Your task to perform on an android device: change notifications settings Image 0: 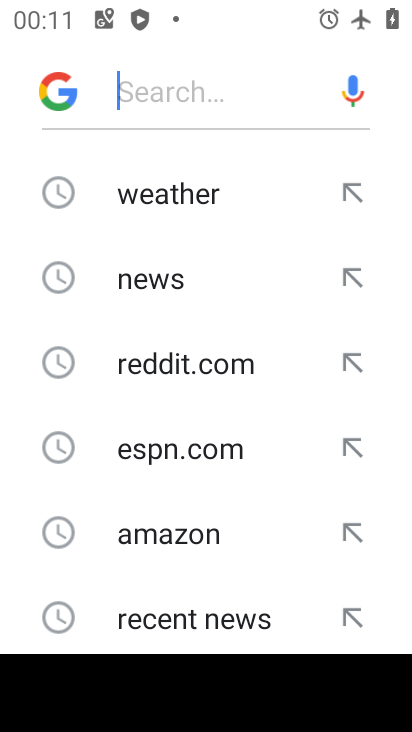
Step 0: press home button
Your task to perform on an android device: change notifications settings Image 1: 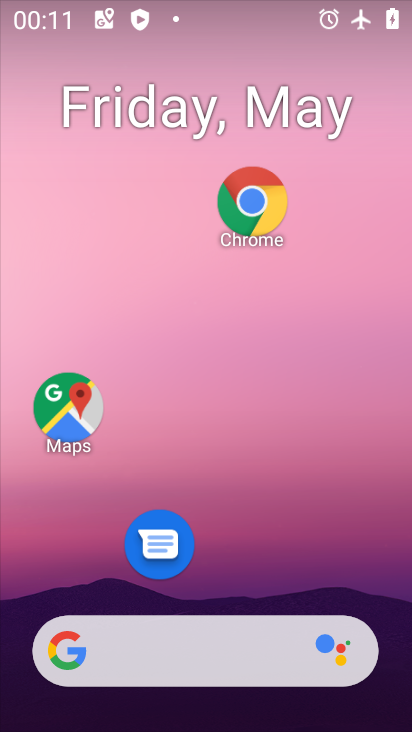
Step 1: drag from (214, 585) to (241, 44)
Your task to perform on an android device: change notifications settings Image 2: 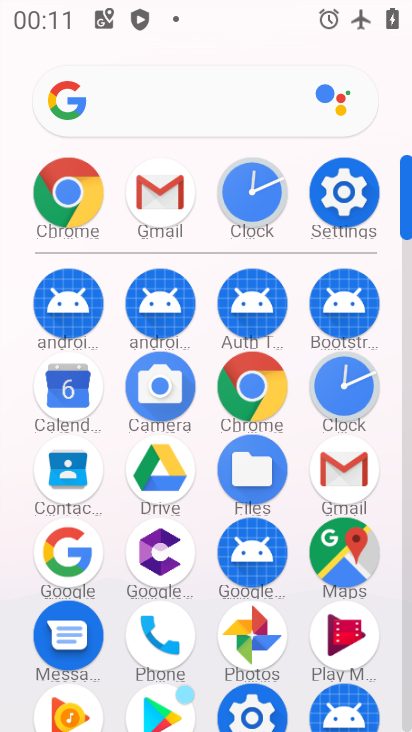
Step 2: click (342, 186)
Your task to perform on an android device: change notifications settings Image 3: 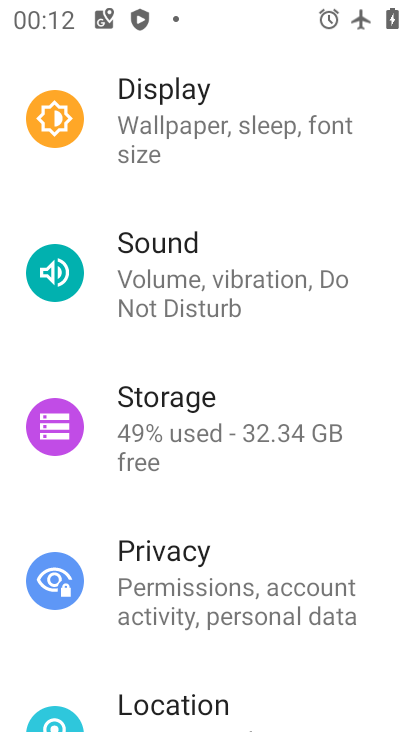
Step 3: drag from (200, 226) to (243, 658)
Your task to perform on an android device: change notifications settings Image 4: 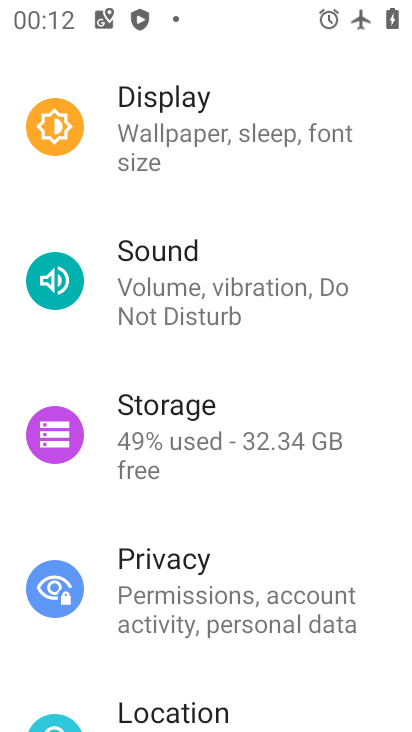
Step 4: drag from (218, 166) to (265, 651)
Your task to perform on an android device: change notifications settings Image 5: 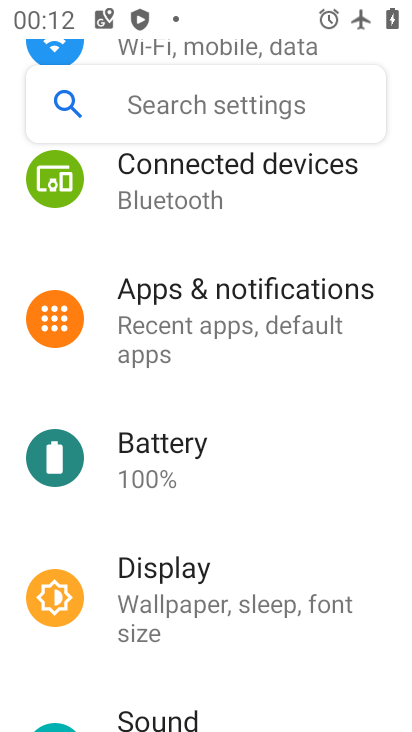
Step 5: click (213, 311)
Your task to perform on an android device: change notifications settings Image 6: 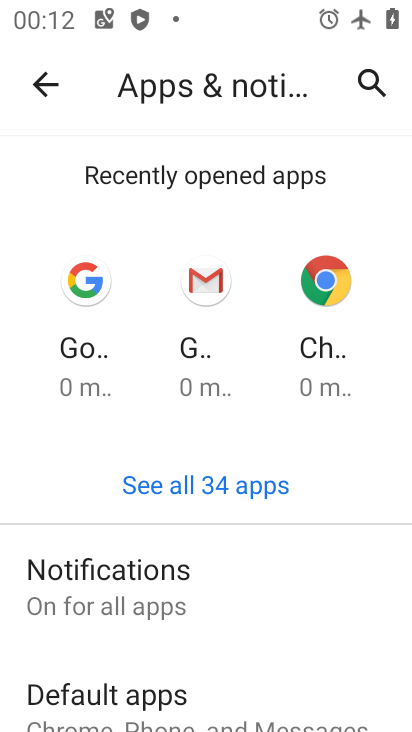
Step 6: click (196, 583)
Your task to perform on an android device: change notifications settings Image 7: 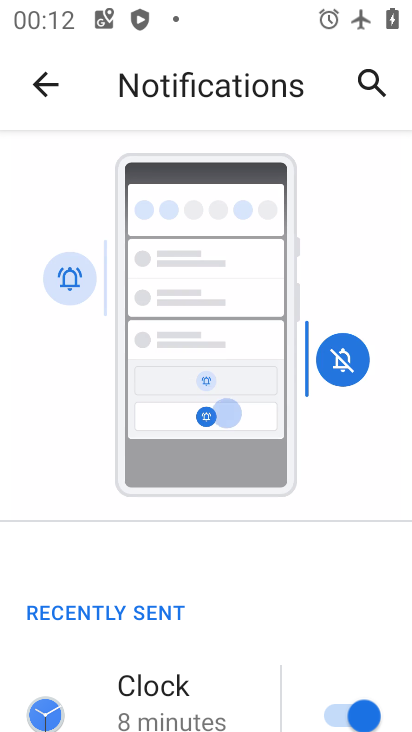
Step 7: drag from (229, 674) to (267, 126)
Your task to perform on an android device: change notifications settings Image 8: 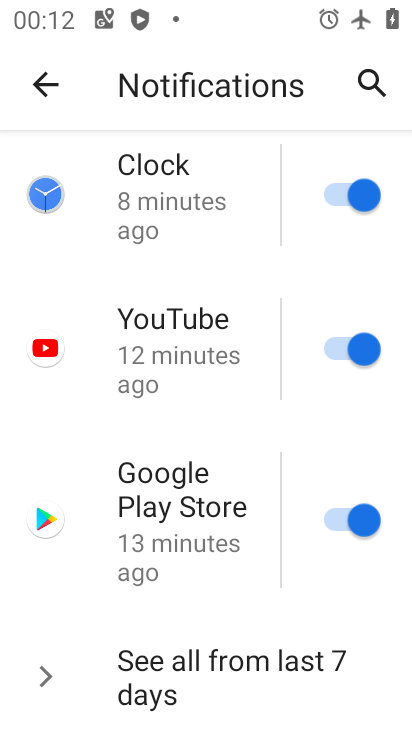
Step 8: click (358, 194)
Your task to perform on an android device: change notifications settings Image 9: 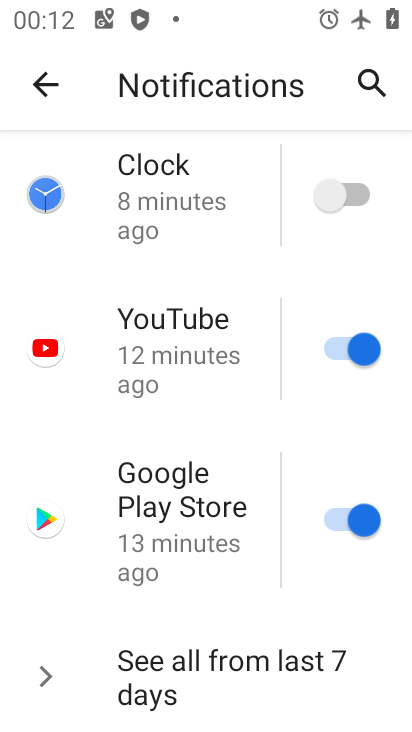
Step 9: click (349, 346)
Your task to perform on an android device: change notifications settings Image 10: 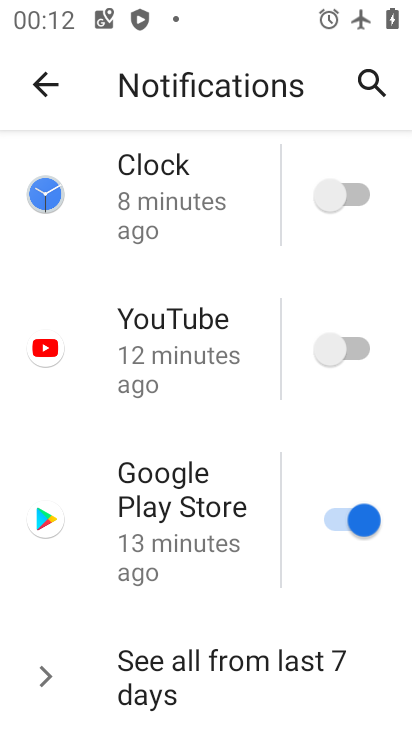
Step 10: click (349, 517)
Your task to perform on an android device: change notifications settings Image 11: 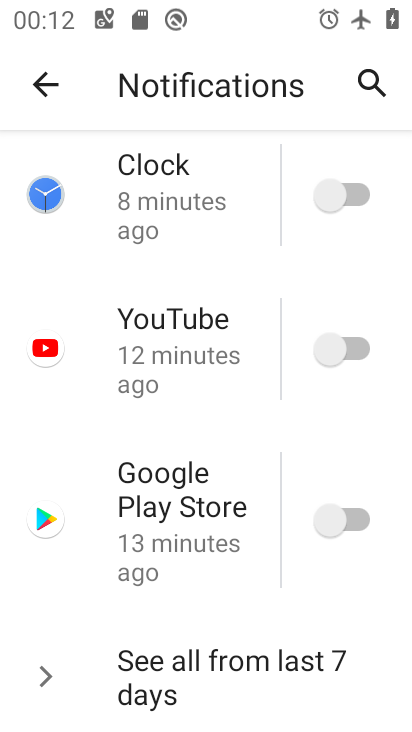
Step 11: drag from (216, 678) to (237, 136)
Your task to perform on an android device: change notifications settings Image 12: 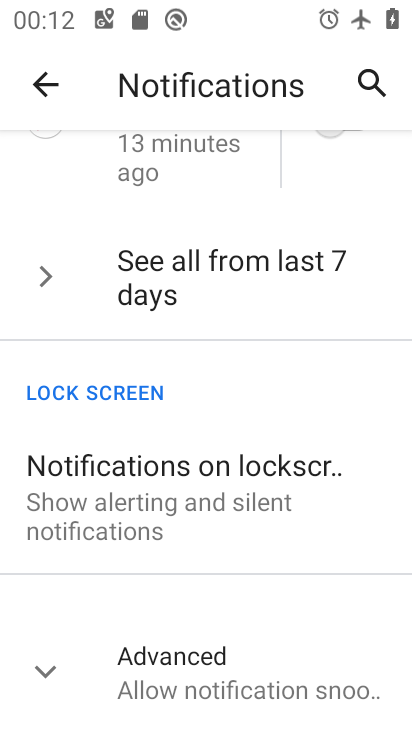
Step 12: click (208, 509)
Your task to perform on an android device: change notifications settings Image 13: 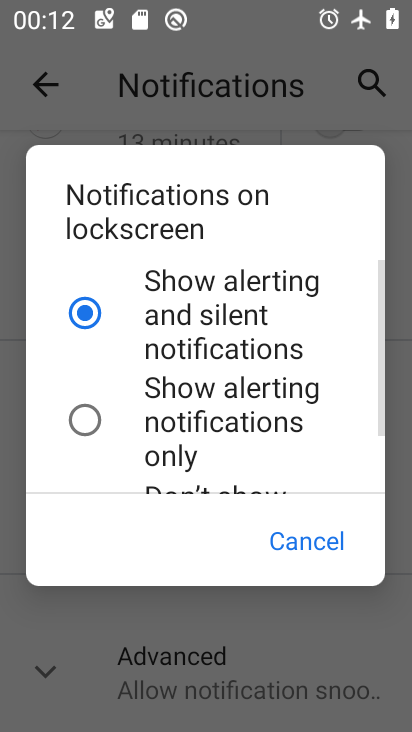
Step 13: click (69, 421)
Your task to perform on an android device: change notifications settings Image 14: 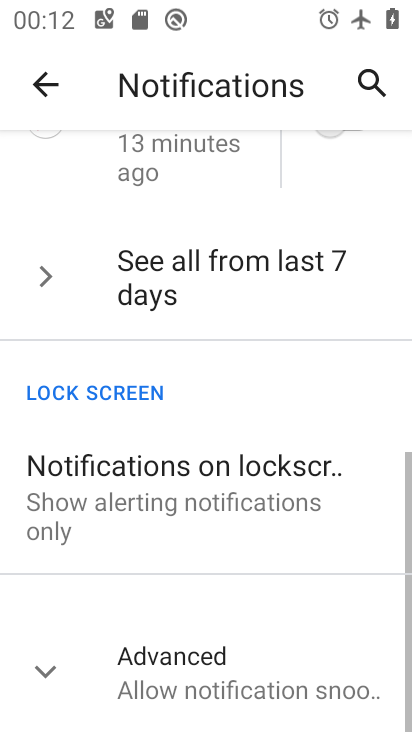
Step 14: click (77, 671)
Your task to perform on an android device: change notifications settings Image 15: 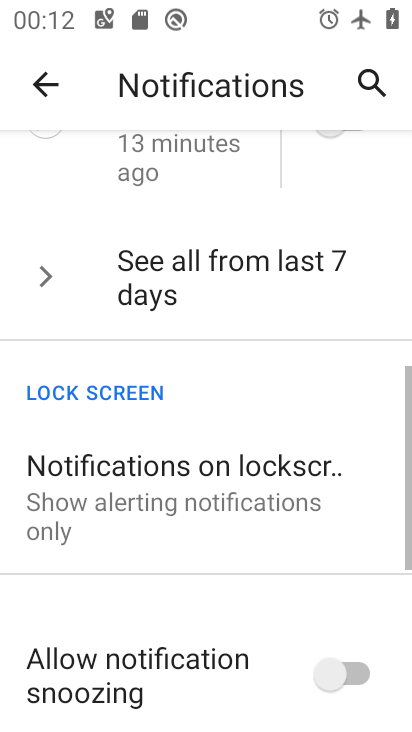
Step 15: drag from (225, 616) to (257, 101)
Your task to perform on an android device: change notifications settings Image 16: 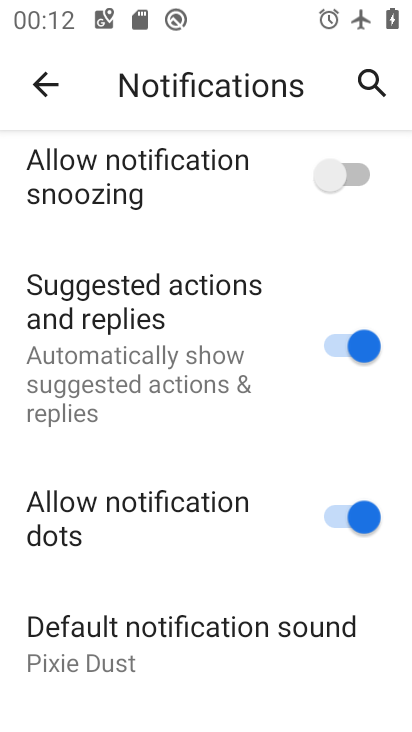
Step 16: click (341, 174)
Your task to perform on an android device: change notifications settings Image 17: 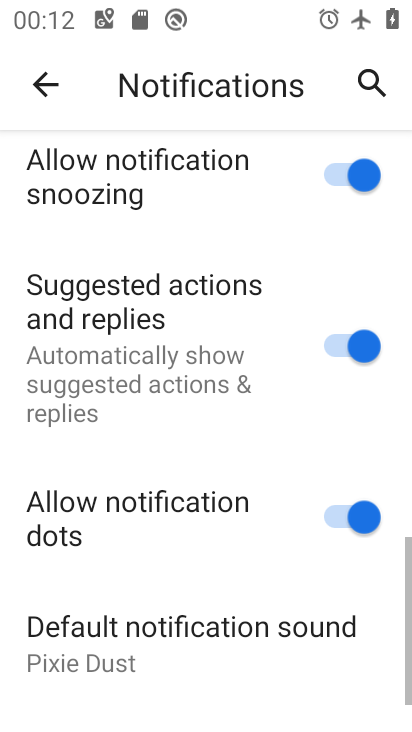
Step 17: click (342, 507)
Your task to perform on an android device: change notifications settings Image 18: 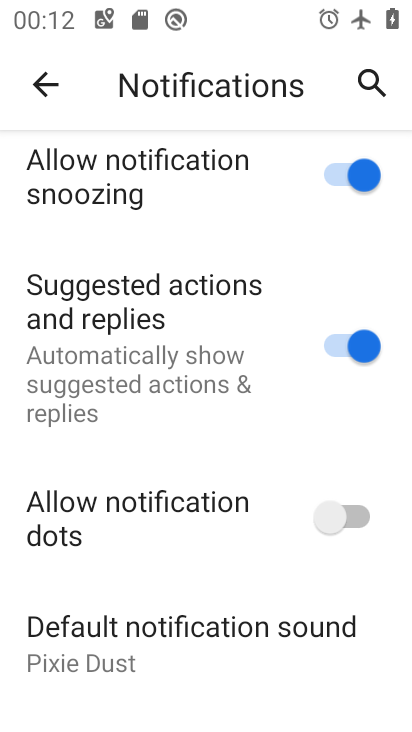
Step 18: task complete